Your task to perform on an android device: Open the calendar and show me this week's events? Image 0: 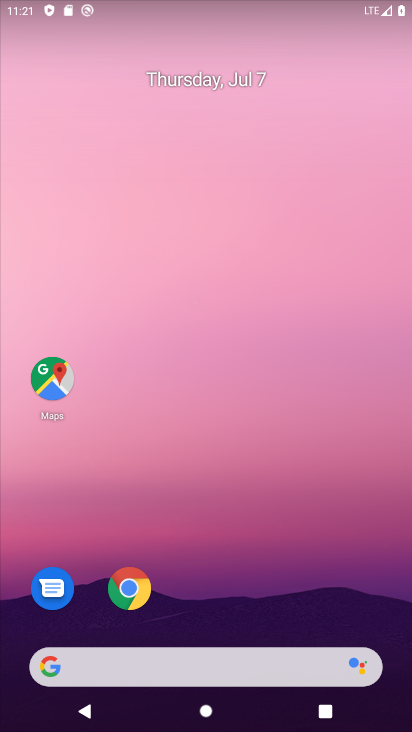
Step 0: drag from (207, 558) to (199, 106)
Your task to perform on an android device: Open the calendar and show me this week's events? Image 1: 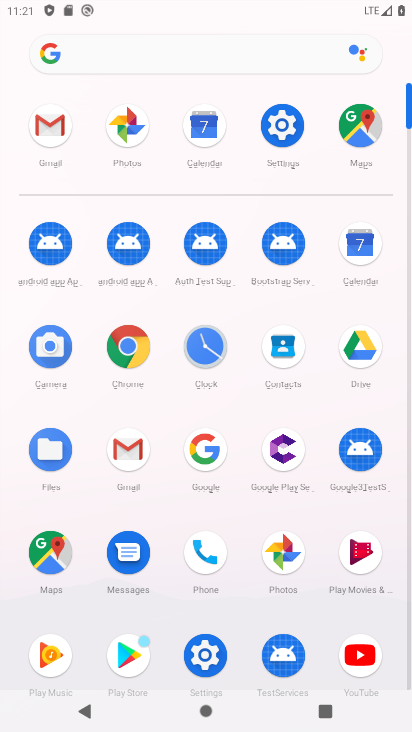
Step 1: click (195, 127)
Your task to perform on an android device: Open the calendar and show me this week's events? Image 2: 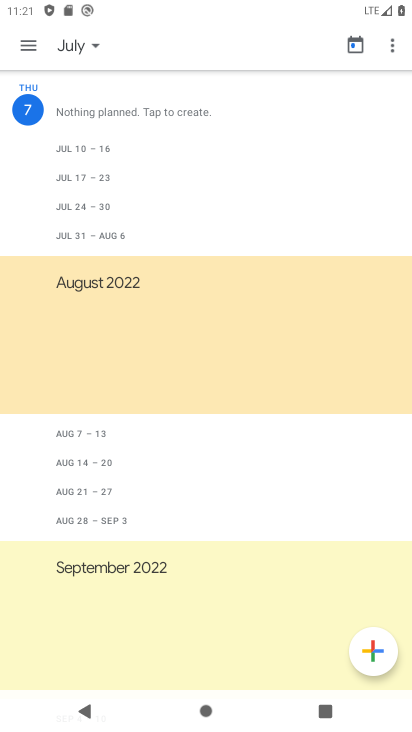
Step 2: click (67, 39)
Your task to perform on an android device: Open the calendar and show me this week's events? Image 3: 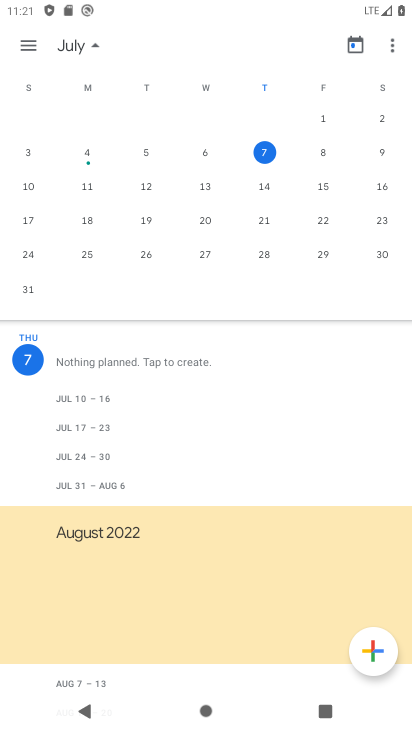
Step 3: click (262, 146)
Your task to perform on an android device: Open the calendar and show me this week's events? Image 4: 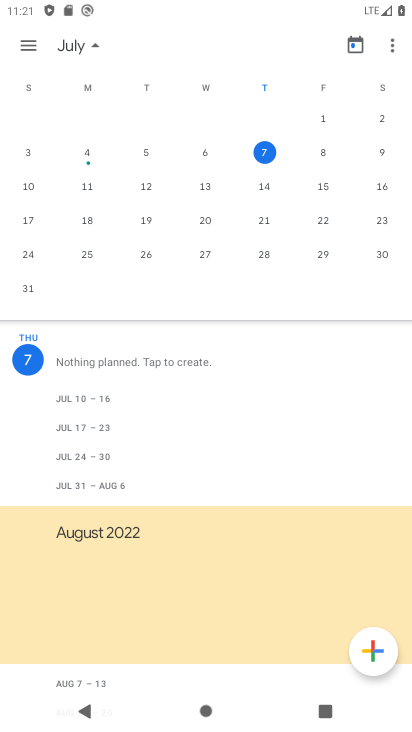
Step 4: click (325, 156)
Your task to perform on an android device: Open the calendar and show me this week's events? Image 5: 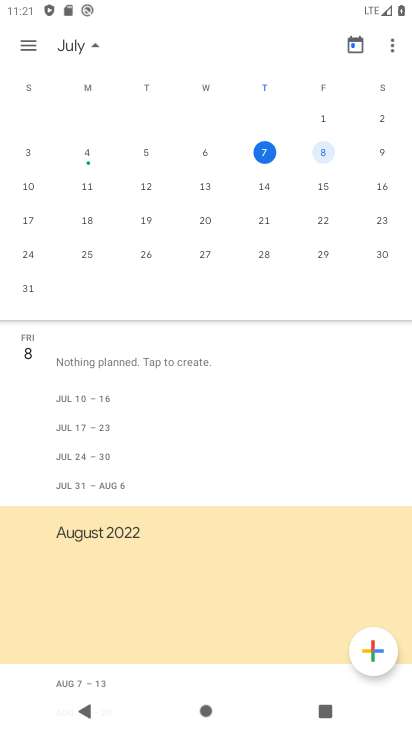
Step 5: click (393, 155)
Your task to perform on an android device: Open the calendar and show me this week's events? Image 6: 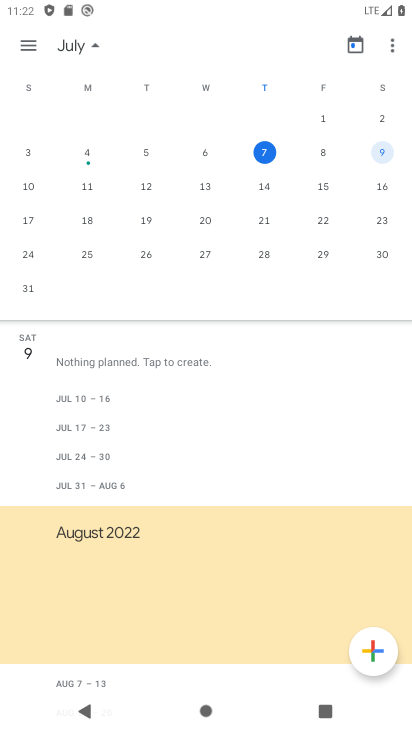
Step 6: task complete